Your task to perform on an android device: stop showing notifications on the lock screen Image 0: 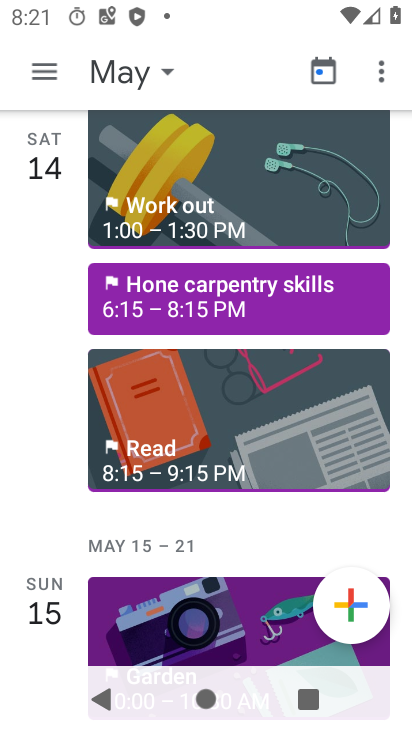
Step 0: press home button
Your task to perform on an android device: stop showing notifications on the lock screen Image 1: 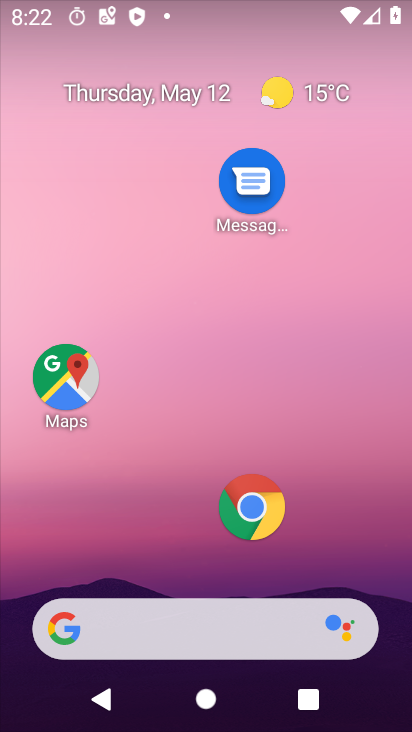
Step 1: drag from (139, 535) to (204, 41)
Your task to perform on an android device: stop showing notifications on the lock screen Image 2: 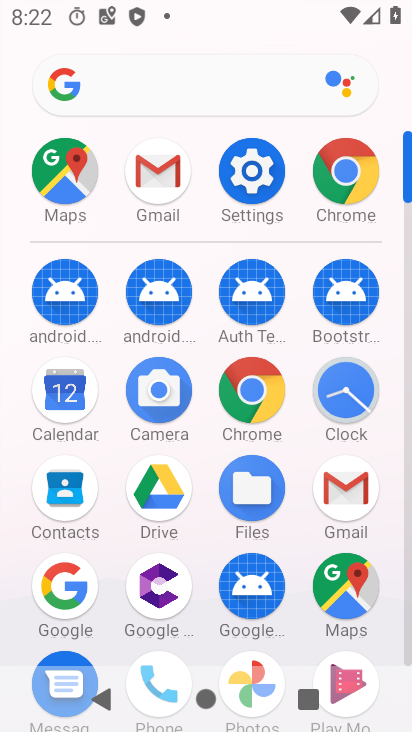
Step 2: click (246, 183)
Your task to perform on an android device: stop showing notifications on the lock screen Image 3: 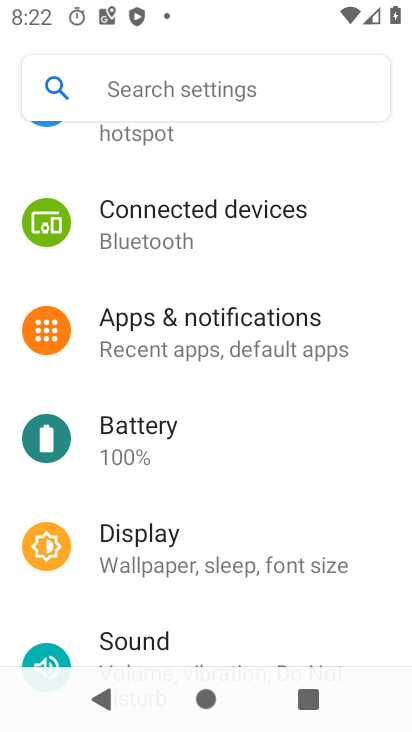
Step 3: click (208, 313)
Your task to perform on an android device: stop showing notifications on the lock screen Image 4: 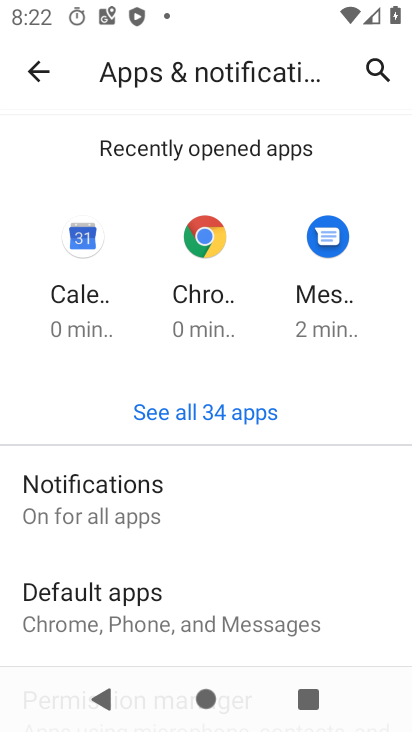
Step 4: click (173, 482)
Your task to perform on an android device: stop showing notifications on the lock screen Image 5: 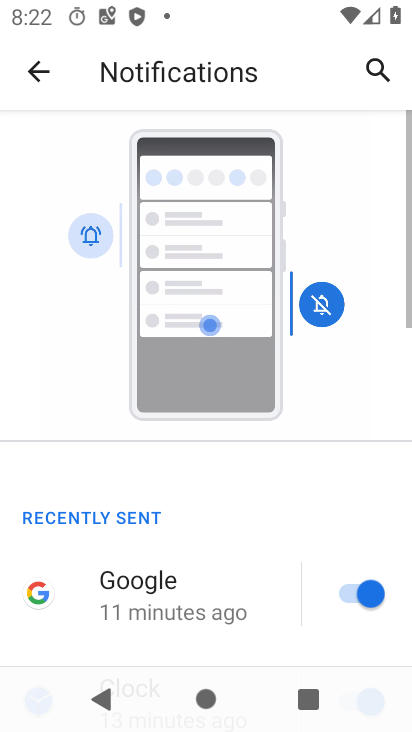
Step 5: drag from (166, 610) to (194, 260)
Your task to perform on an android device: stop showing notifications on the lock screen Image 6: 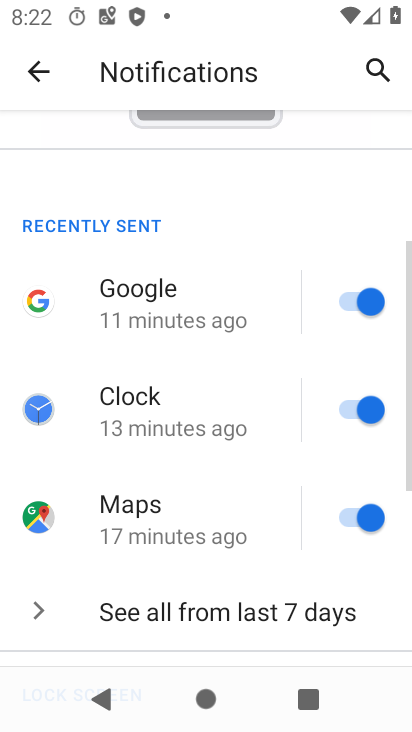
Step 6: drag from (172, 598) to (199, 318)
Your task to perform on an android device: stop showing notifications on the lock screen Image 7: 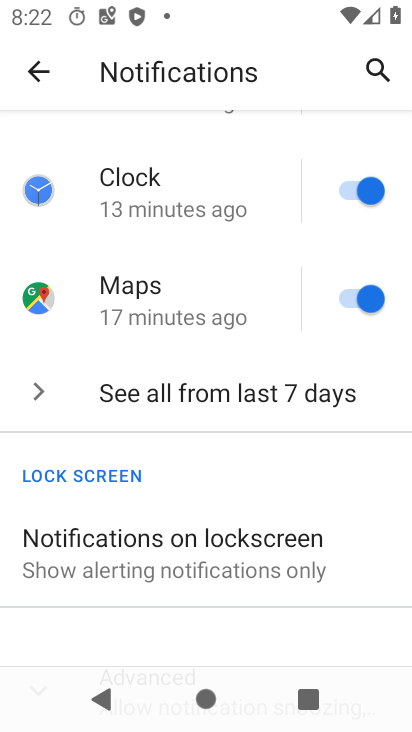
Step 7: click (137, 566)
Your task to perform on an android device: stop showing notifications on the lock screen Image 8: 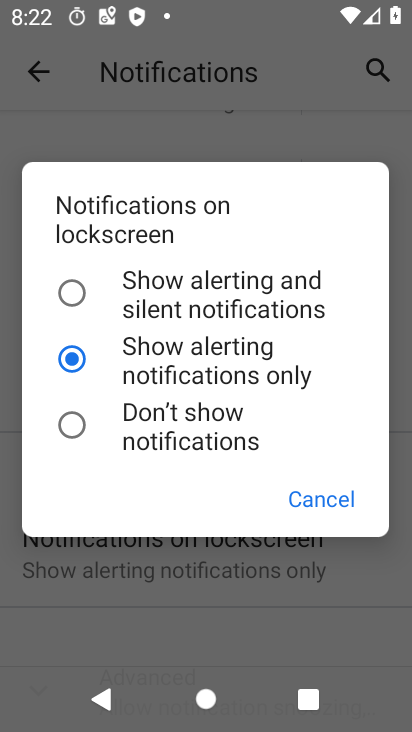
Step 8: click (181, 446)
Your task to perform on an android device: stop showing notifications on the lock screen Image 9: 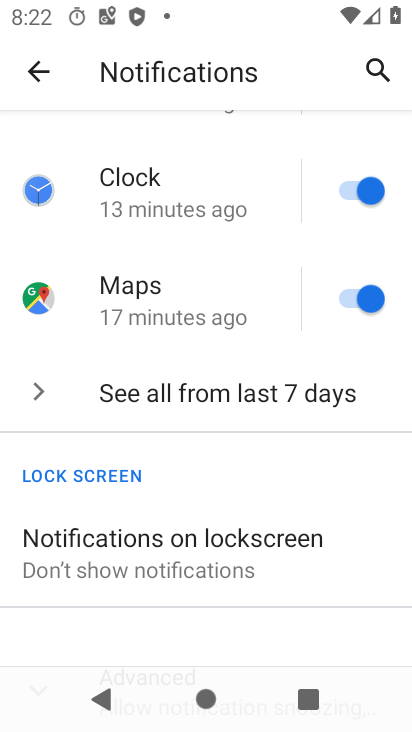
Step 9: task complete